Your task to perform on an android device: allow notifications from all sites in the chrome app Image 0: 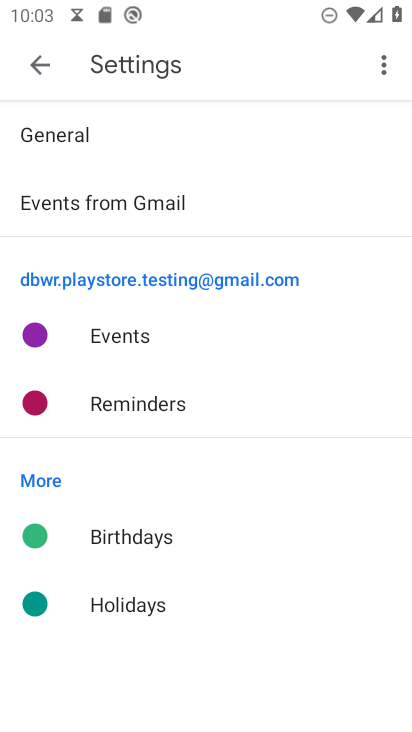
Step 0: press home button
Your task to perform on an android device: allow notifications from all sites in the chrome app Image 1: 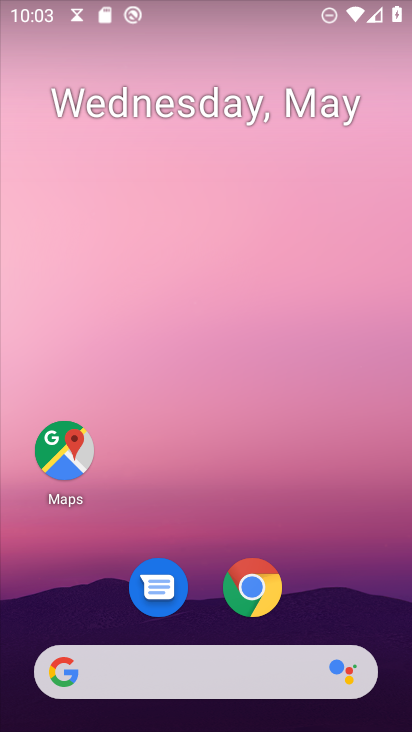
Step 1: click (247, 587)
Your task to perform on an android device: allow notifications from all sites in the chrome app Image 2: 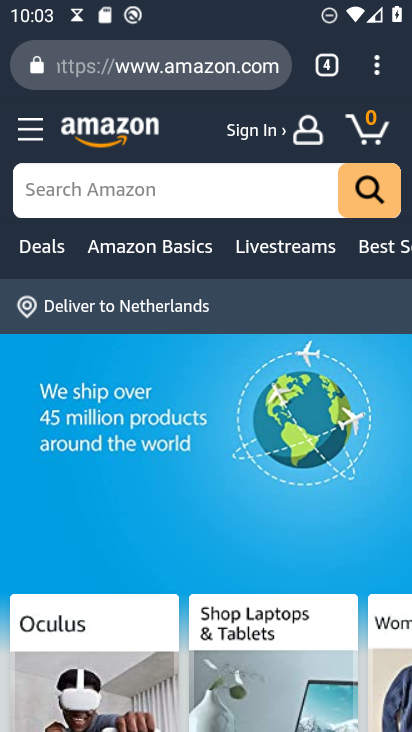
Step 2: click (378, 73)
Your task to perform on an android device: allow notifications from all sites in the chrome app Image 3: 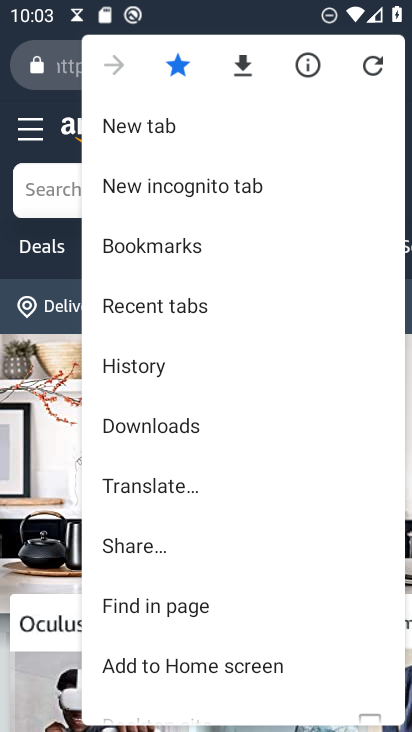
Step 3: drag from (148, 677) to (182, 335)
Your task to perform on an android device: allow notifications from all sites in the chrome app Image 4: 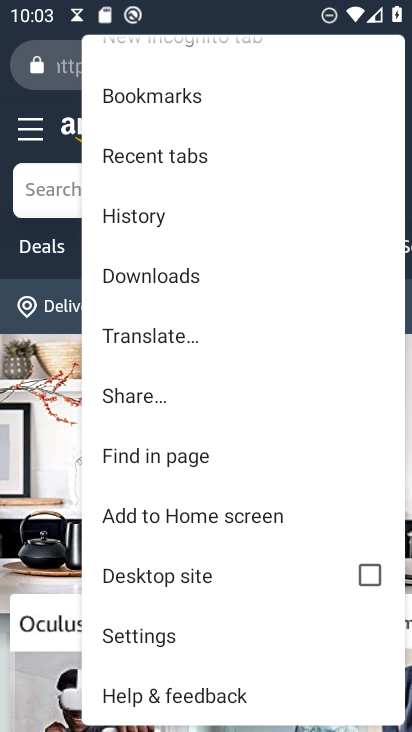
Step 4: click (138, 640)
Your task to perform on an android device: allow notifications from all sites in the chrome app Image 5: 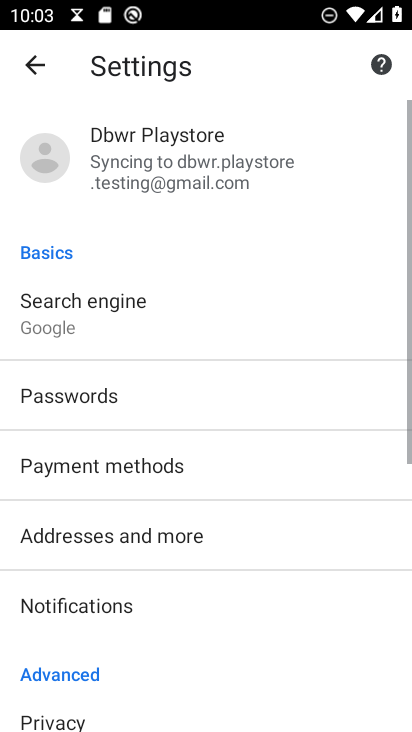
Step 5: drag from (190, 664) to (201, 324)
Your task to perform on an android device: allow notifications from all sites in the chrome app Image 6: 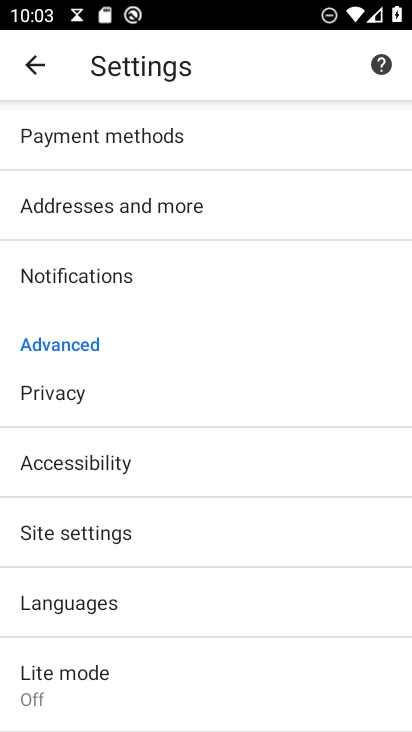
Step 6: click (76, 525)
Your task to perform on an android device: allow notifications from all sites in the chrome app Image 7: 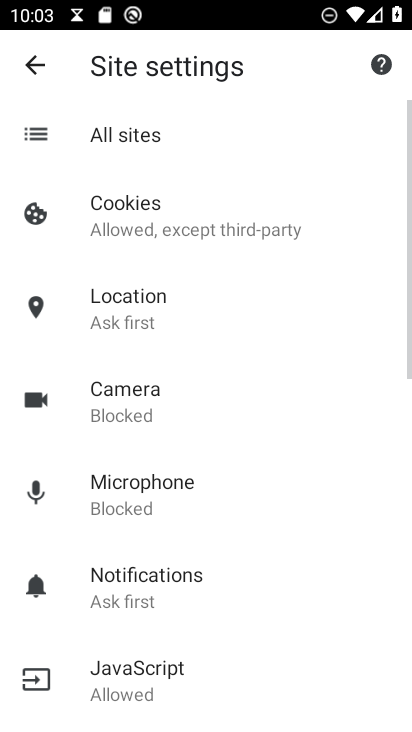
Step 7: click (134, 575)
Your task to perform on an android device: allow notifications from all sites in the chrome app Image 8: 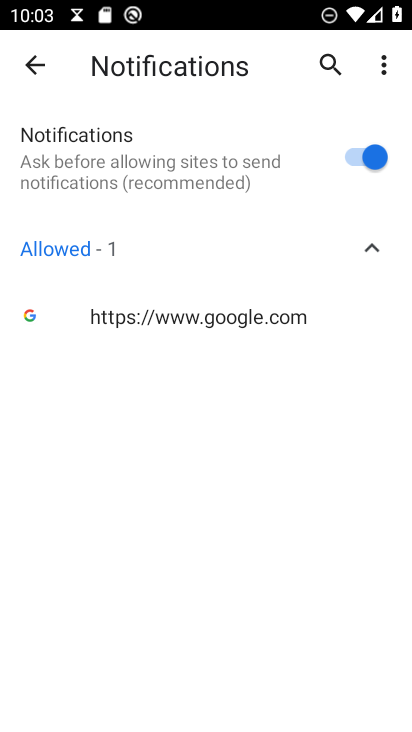
Step 8: task complete